Your task to perform on an android device: install app "Roku - Official Remote Control" Image 0: 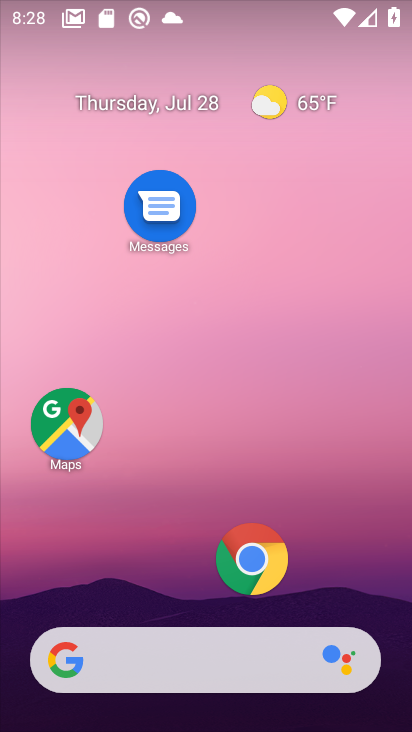
Step 0: drag from (179, 585) to (194, 76)
Your task to perform on an android device: install app "Roku - Official Remote Control" Image 1: 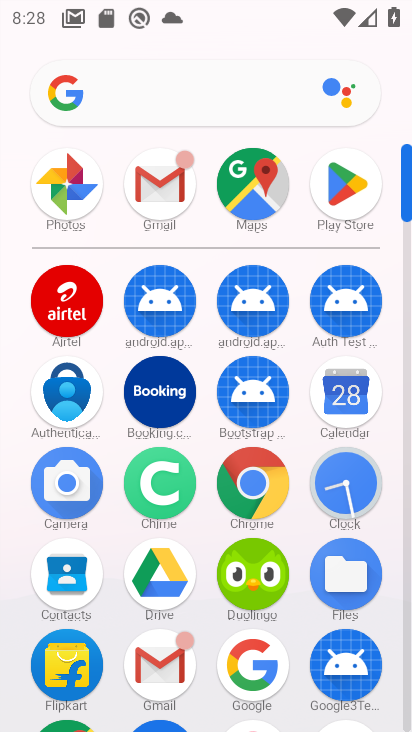
Step 1: click (356, 204)
Your task to perform on an android device: install app "Roku - Official Remote Control" Image 2: 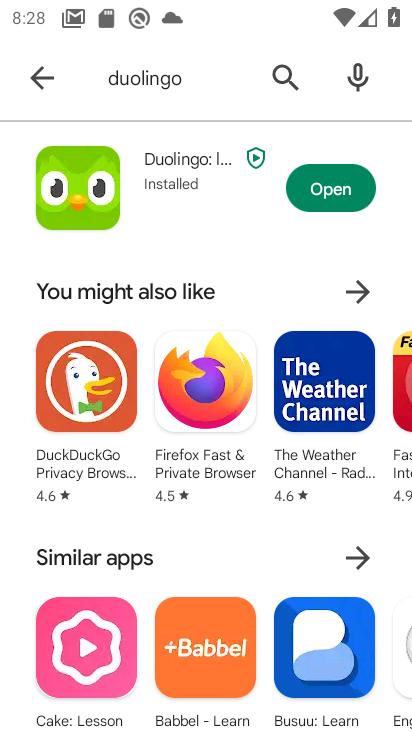
Step 2: click (163, 88)
Your task to perform on an android device: install app "Roku - Official Remote Control" Image 3: 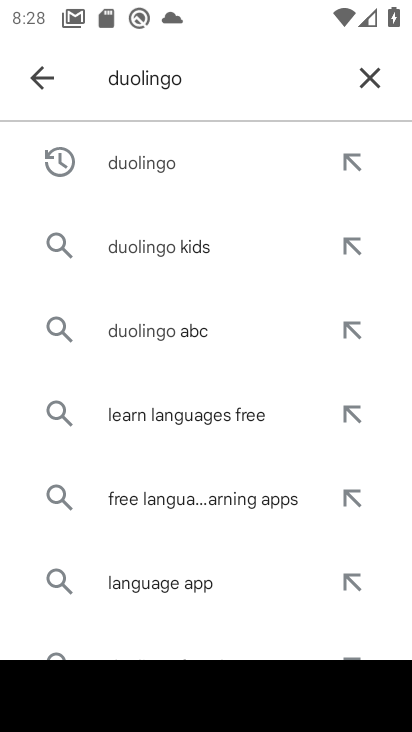
Step 3: click (368, 70)
Your task to perform on an android device: install app "Roku - Official Remote Control" Image 4: 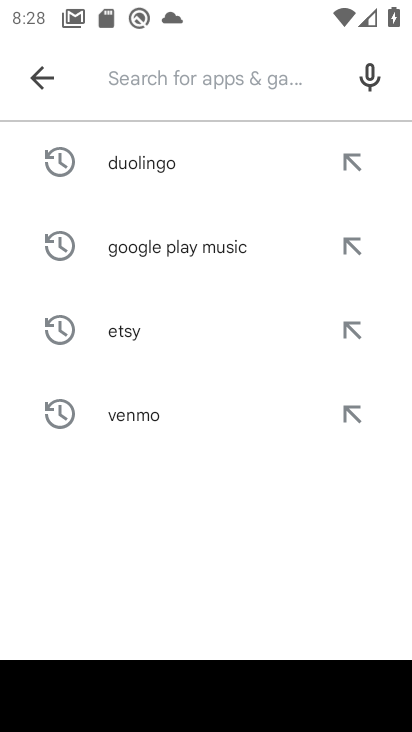
Step 4: type "Roku"
Your task to perform on an android device: install app "Roku - Official Remote Control" Image 5: 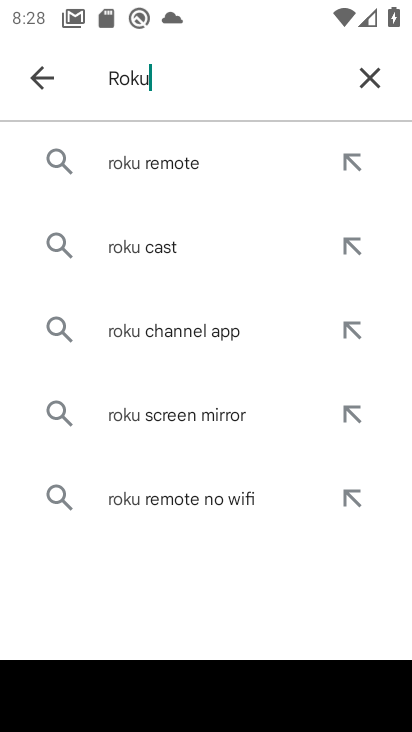
Step 5: click (187, 180)
Your task to perform on an android device: install app "Roku - Official Remote Control" Image 6: 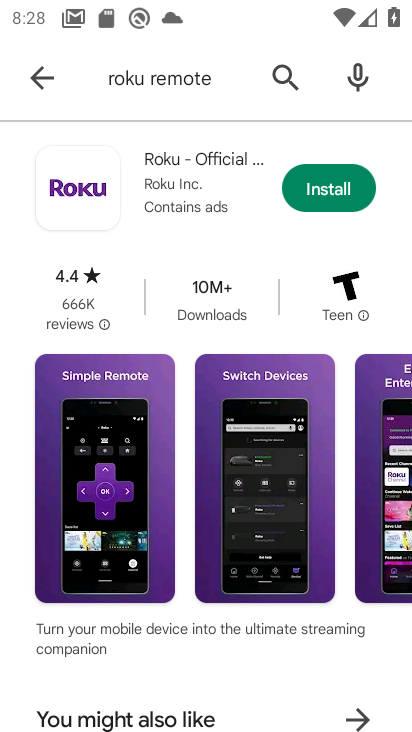
Step 6: click (343, 197)
Your task to perform on an android device: install app "Roku - Official Remote Control" Image 7: 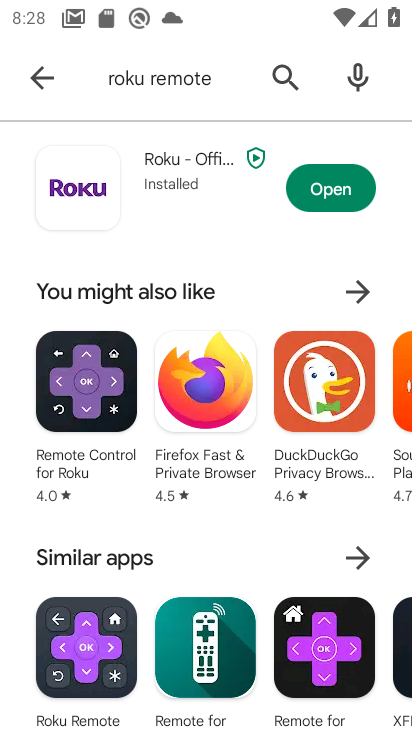
Step 7: task complete